Your task to perform on an android device: turn off sleep mode Image 0: 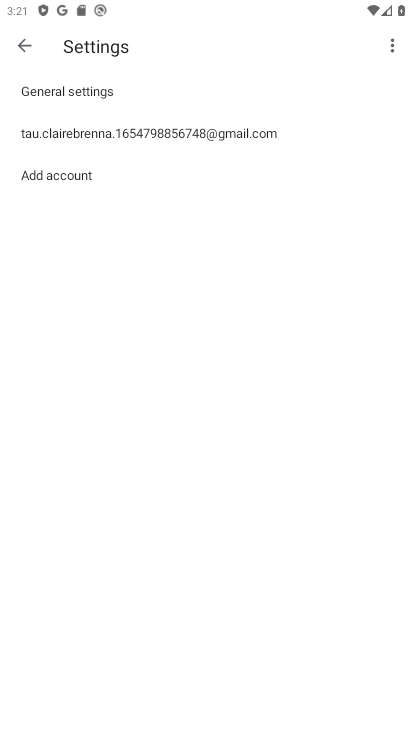
Step 0: press home button
Your task to perform on an android device: turn off sleep mode Image 1: 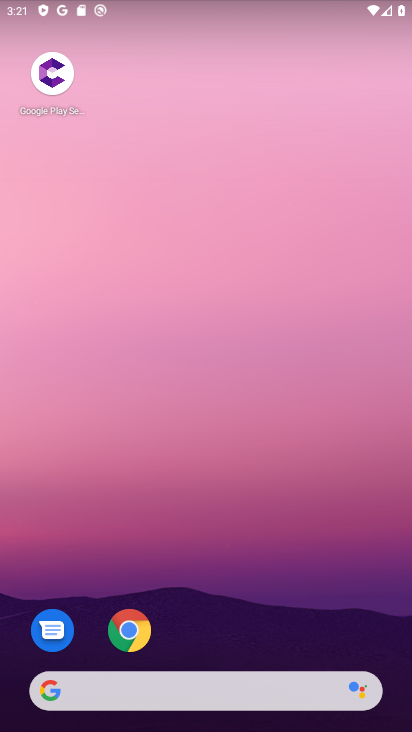
Step 1: drag from (192, 696) to (178, 180)
Your task to perform on an android device: turn off sleep mode Image 2: 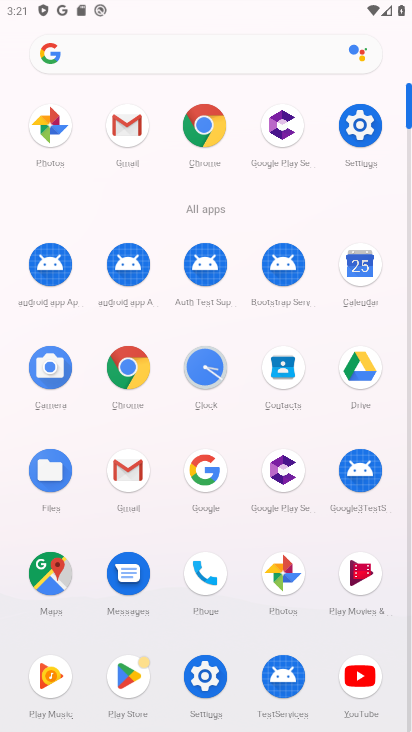
Step 2: click (357, 128)
Your task to perform on an android device: turn off sleep mode Image 3: 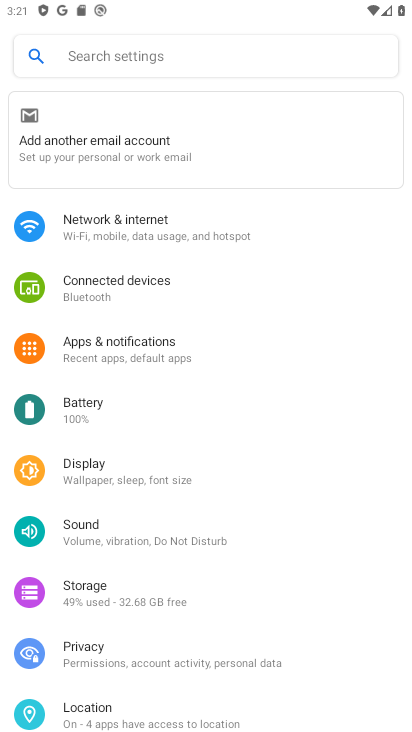
Step 3: click (104, 480)
Your task to perform on an android device: turn off sleep mode Image 4: 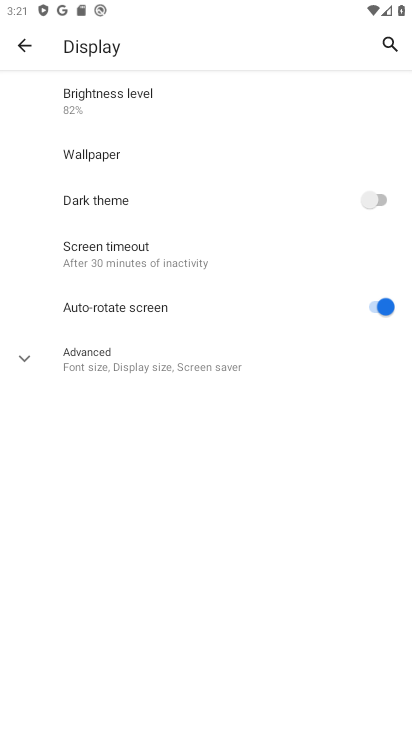
Step 4: click (145, 252)
Your task to perform on an android device: turn off sleep mode Image 5: 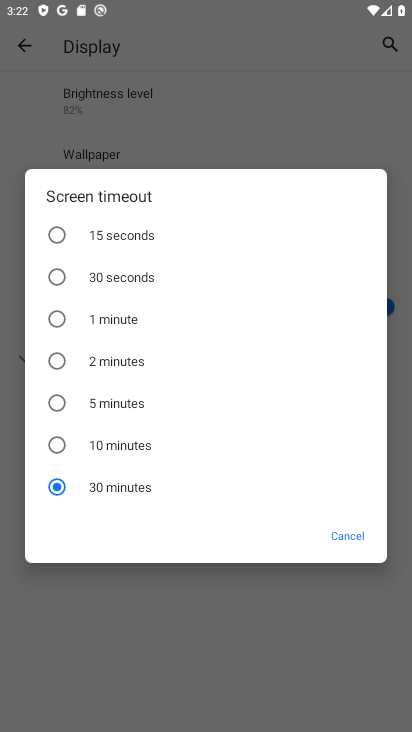
Step 5: click (348, 541)
Your task to perform on an android device: turn off sleep mode Image 6: 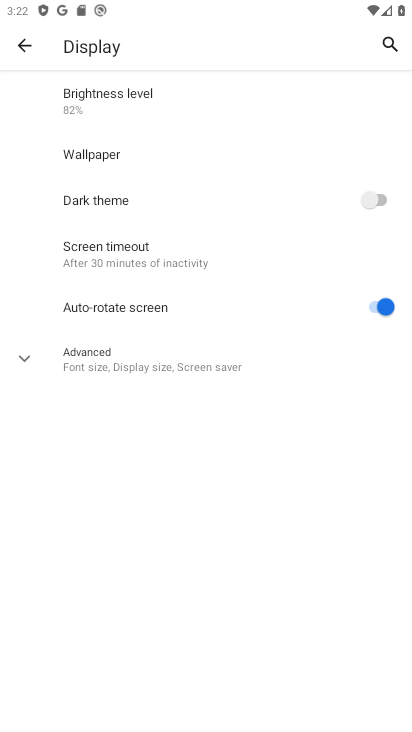
Step 6: click (147, 371)
Your task to perform on an android device: turn off sleep mode Image 7: 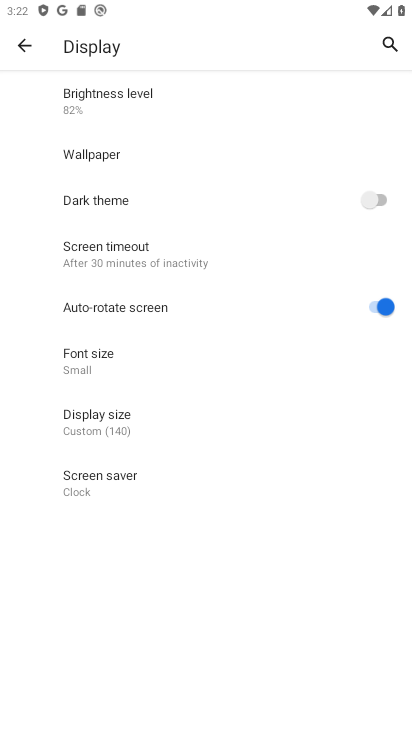
Step 7: task complete